Your task to perform on an android device: Open Chrome and go to settings Image 0: 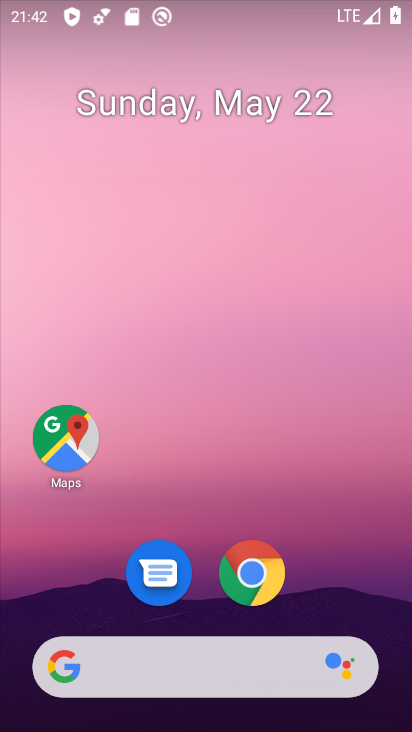
Step 0: press home button
Your task to perform on an android device: Open Chrome and go to settings Image 1: 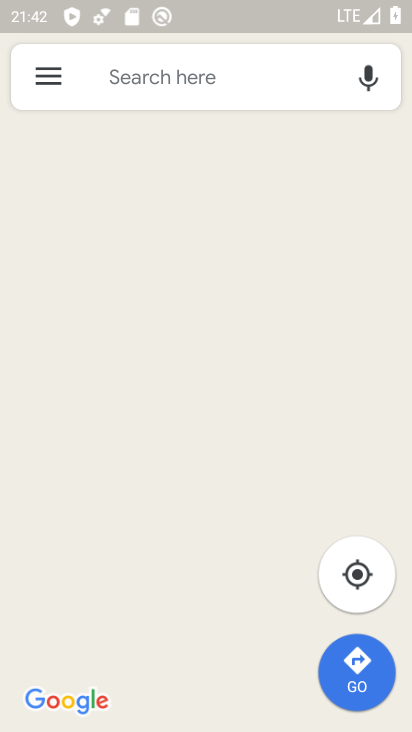
Step 1: drag from (407, 321) to (410, 250)
Your task to perform on an android device: Open Chrome and go to settings Image 2: 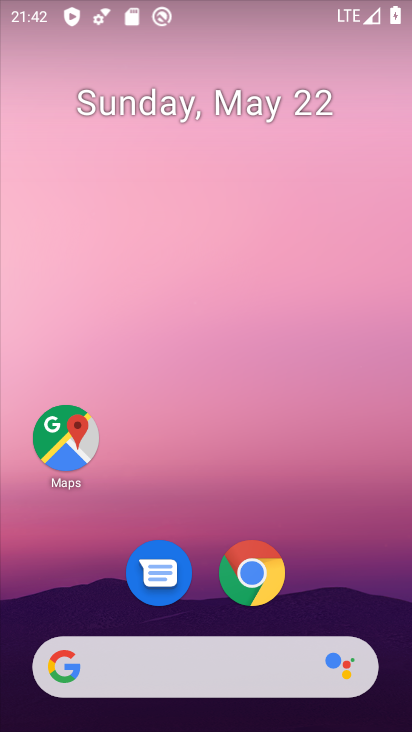
Step 2: click (240, 579)
Your task to perform on an android device: Open Chrome and go to settings Image 3: 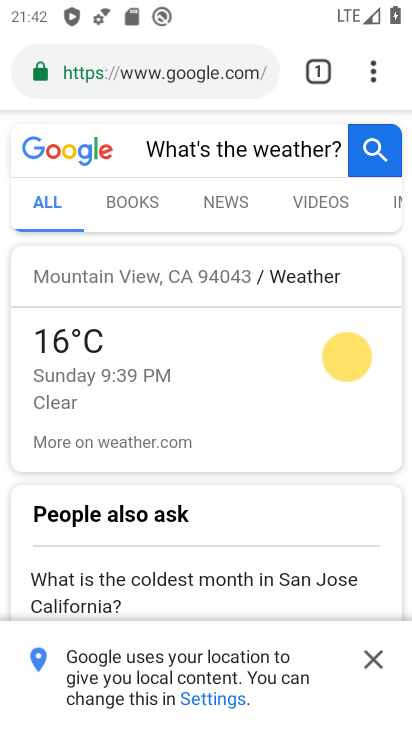
Step 3: task complete